Your task to perform on an android device: turn on the 24-hour format for clock Image 0: 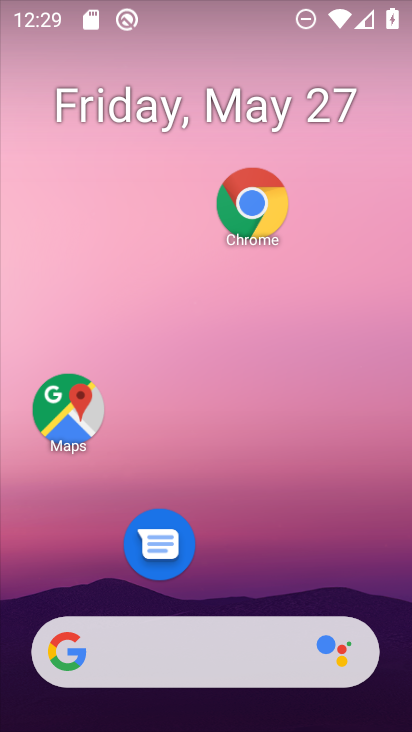
Step 0: drag from (204, 580) to (156, 196)
Your task to perform on an android device: turn on the 24-hour format for clock Image 1: 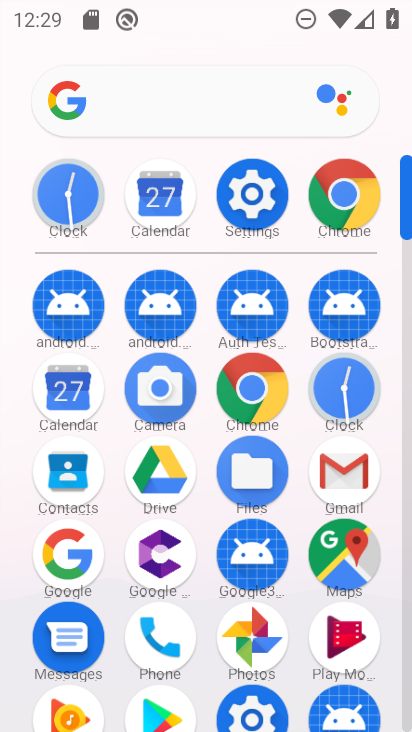
Step 1: click (342, 390)
Your task to perform on an android device: turn on the 24-hour format for clock Image 2: 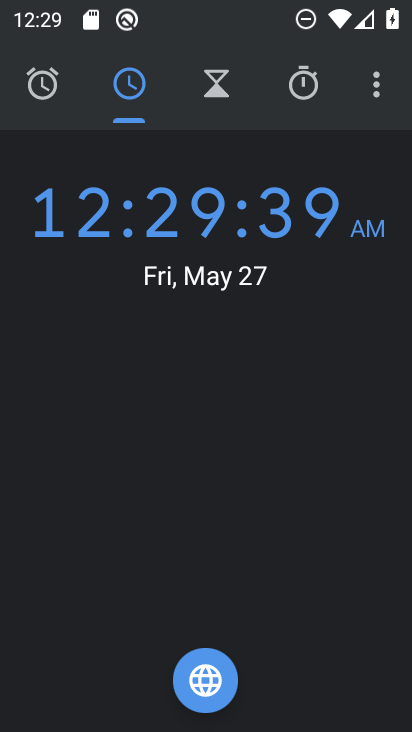
Step 2: click (380, 91)
Your task to perform on an android device: turn on the 24-hour format for clock Image 3: 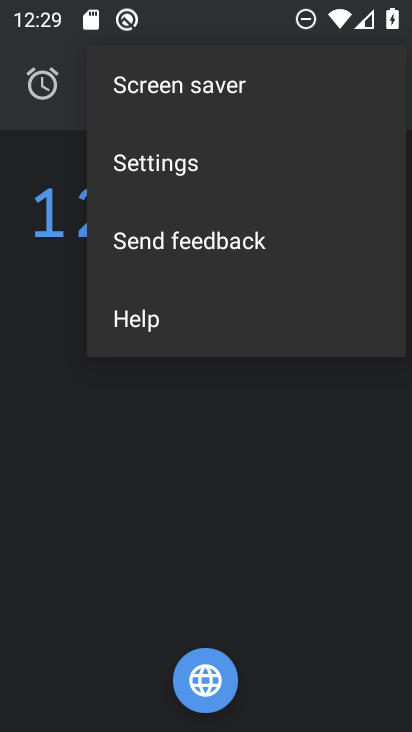
Step 3: click (192, 172)
Your task to perform on an android device: turn on the 24-hour format for clock Image 4: 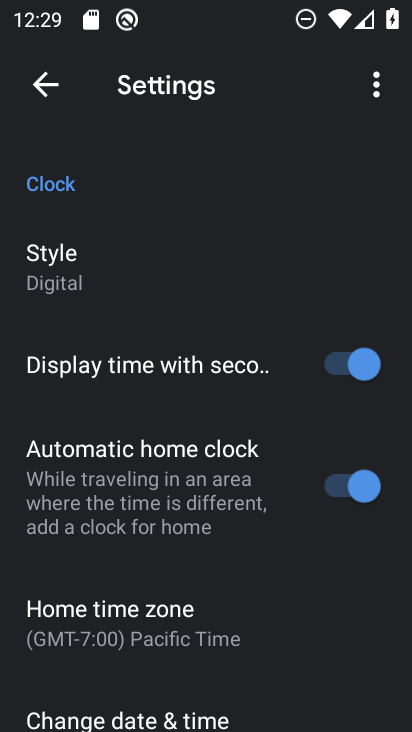
Step 4: drag from (203, 589) to (231, 172)
Your task to perform on an android device: turn on the 24-hour format for clock Image 5: 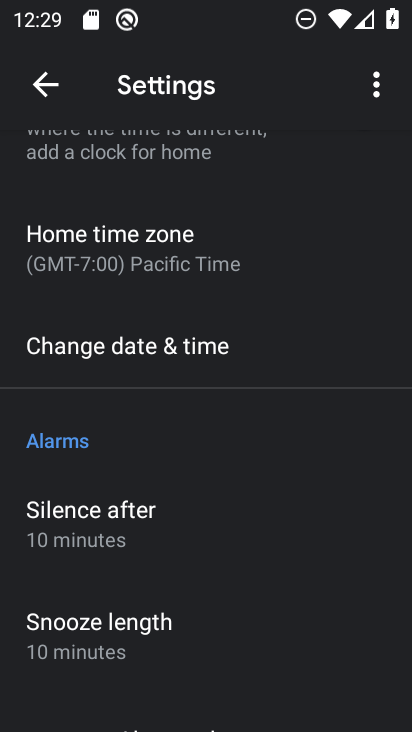
Step 5: click (172, 349)
Your task to perform on an android device: turn on the 24-hour format for clock Image 6: 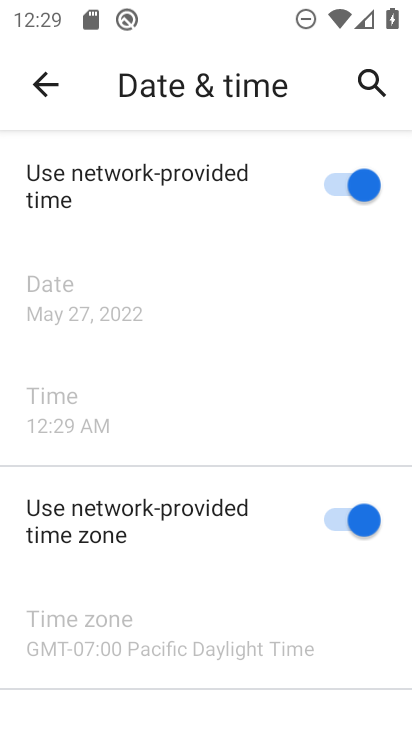
Step 6: drag from (286, 591) to (320, 316)
Your task to perform on an android device: turn on the 24-hour format for clock Image 7: 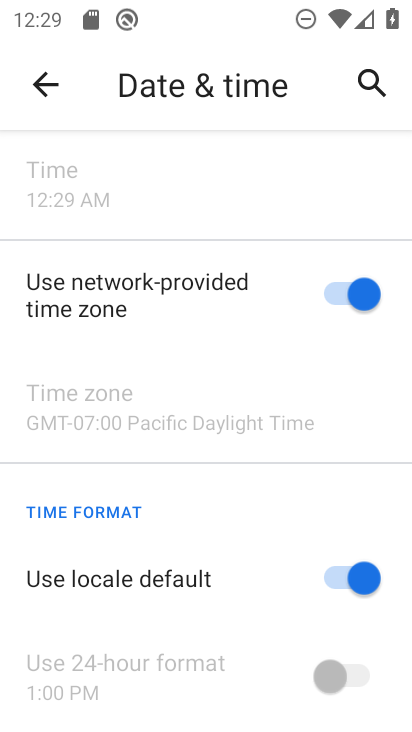
Step 7: drag from (203, 329) to (294, 731)
Your task to perform on an android device: turn on the 24-hour format for clock Image 8: 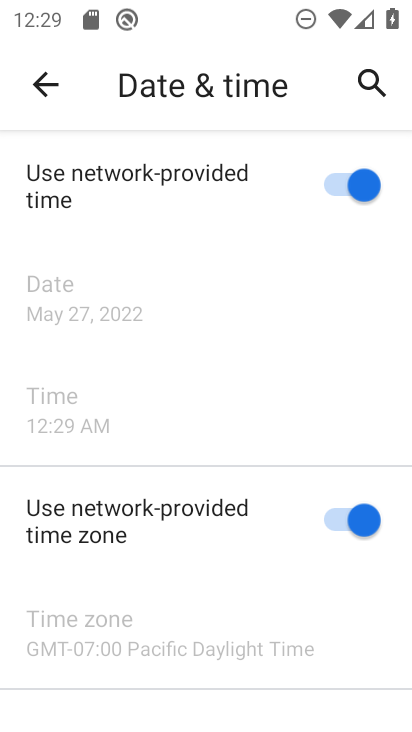
Step 8: drag from (283, 602) to (344, 8)
Your task to perform on an android device: turn on the 24-hour format for clock Image 9: 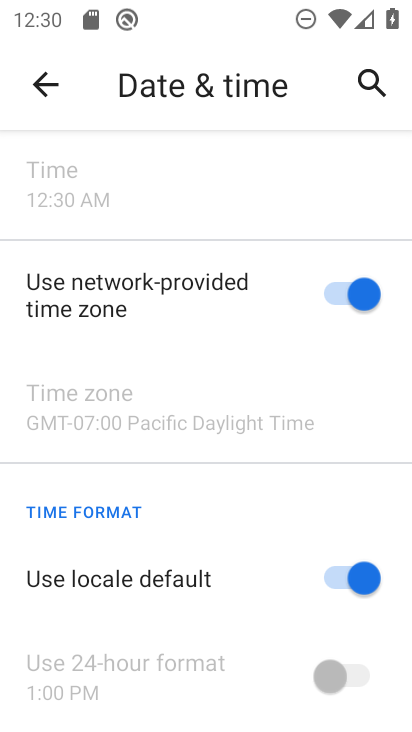
Step 9: click (352, 557)
Your task to perform on an android device: turn on the 24-hour format for clock Image 10: 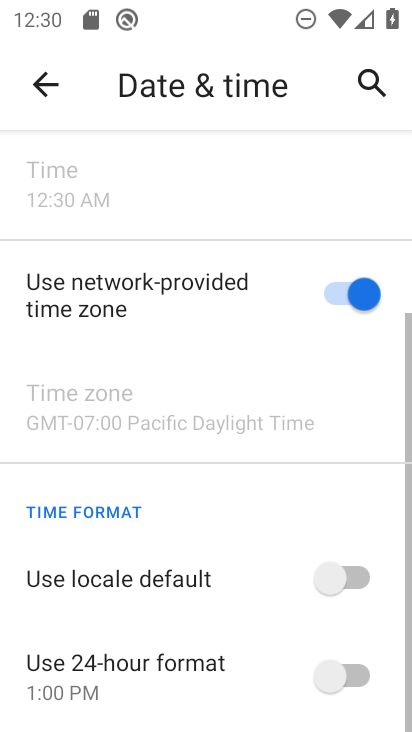
Step 10: click (350, 676)
Your task to perform on an android device: turn on the 24-hour format for clock Image 11: 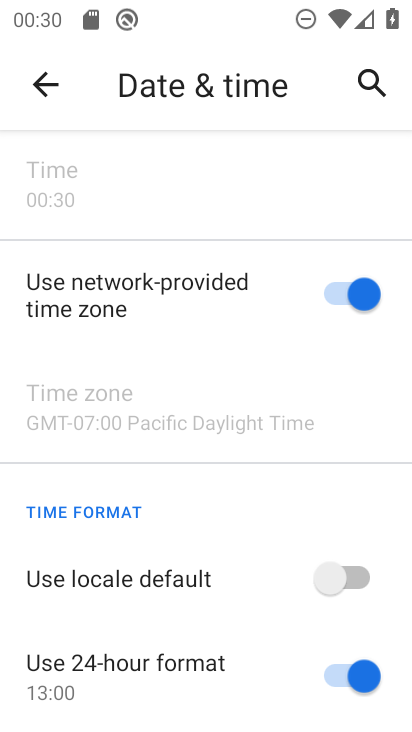
Step 11: task complete